Your task to perform on an android device: Open Android settings Image 0: 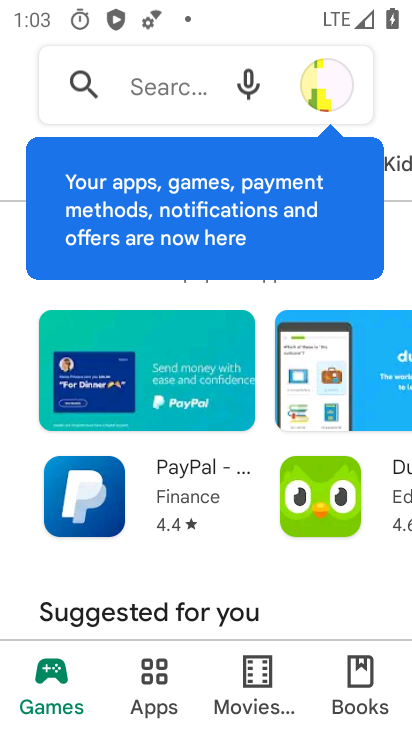
Step 0: press home button
Your task to perform on an android device: Open Android settings Image 1: 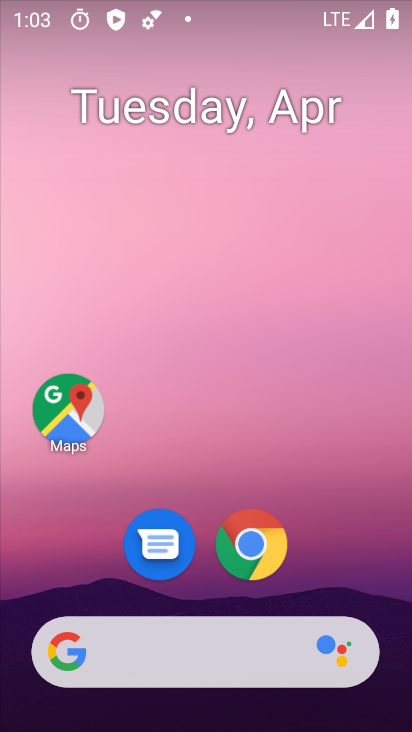
Step 1: drag from (350, 585) to (350, 13)
Your task to perform on an android device: Open Android settings Image 2: 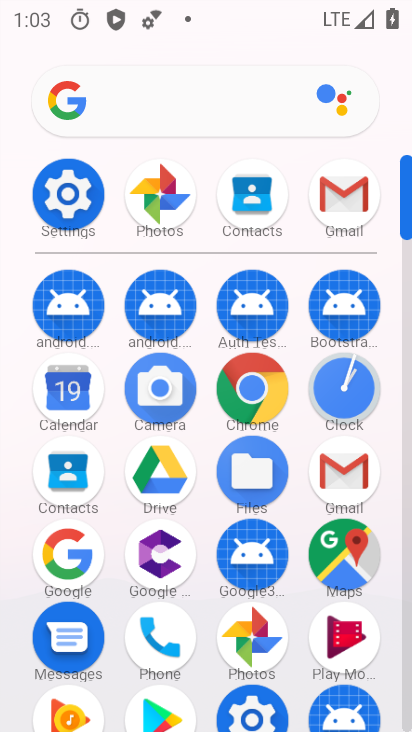
Step 2: click (69, 194)
Your task to perform on an android device: Open Android settings Image 3: 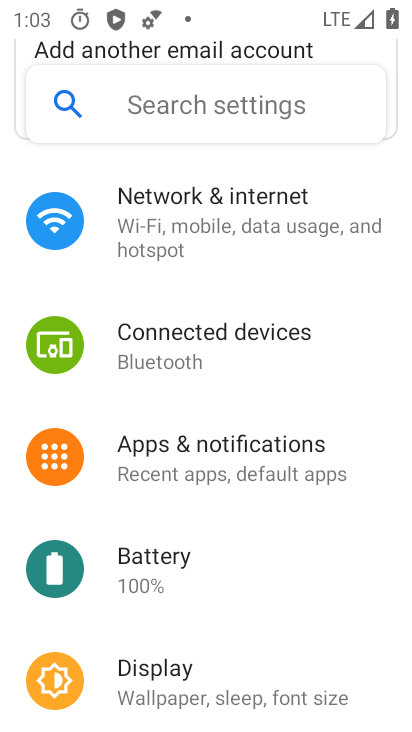
Step 3: drag from (343, 597) to (320, 170)
Your task to perform on an android device: Open Android settings Image 4: 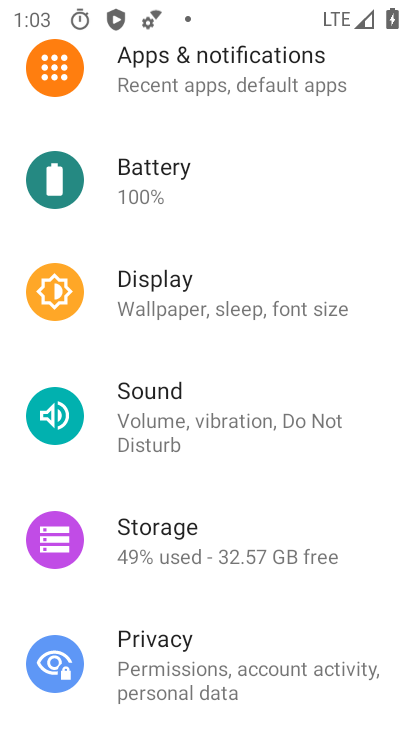
Step 4: drag from (336, 627) to (289, 144)
Your task to perform on an android device: Open Android settings Image 5: 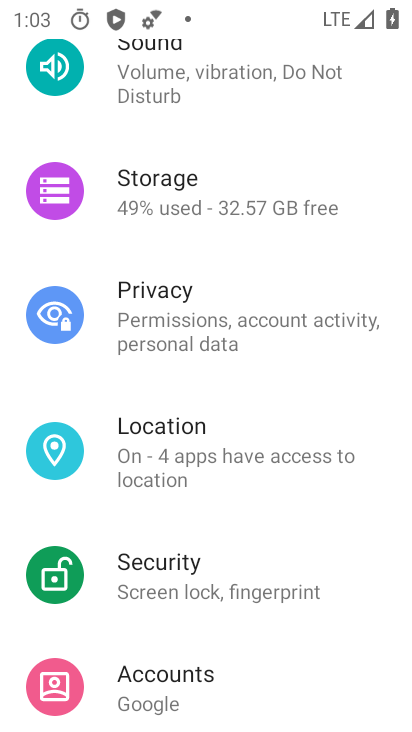
Step 5: drag from (254, 625) to (240, 151)
Your task to perform on an android device: Open Android settings Image 6: 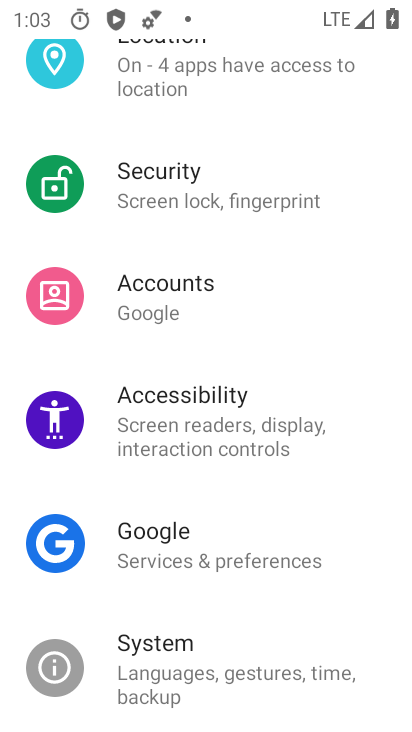
Step 6: drag from (252, 553) to (222, 184)
Your task to perform on an android device: Open Android settings Image 7: 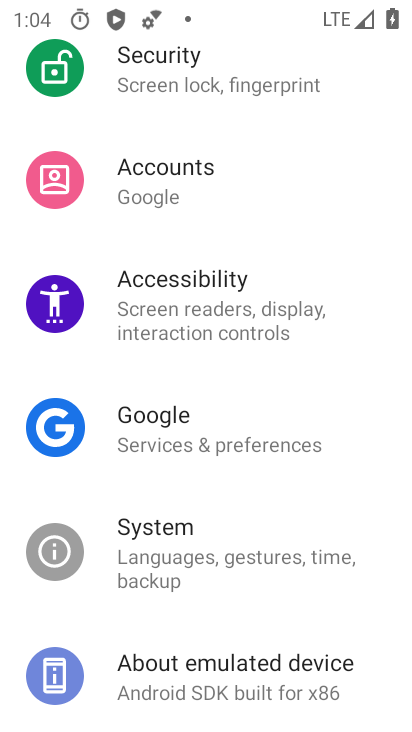
Step 7: click (164, 558)
Your task to perform on an android device: Open Android settings Image 8: 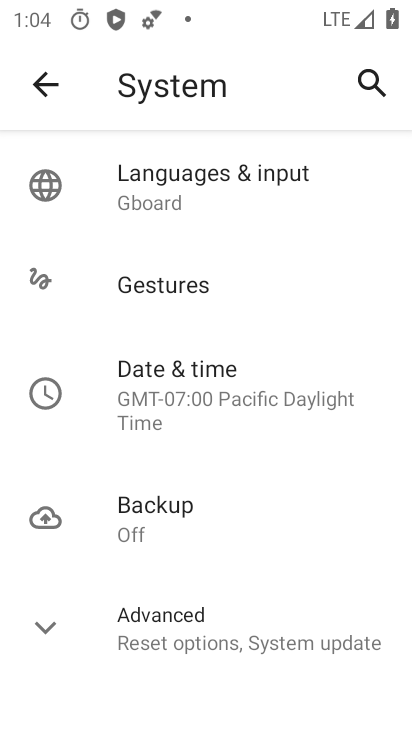
Step 8: drag from (315, 511) to (284, 178)
Your task to perform on an android device: Open Android settings Image 9: 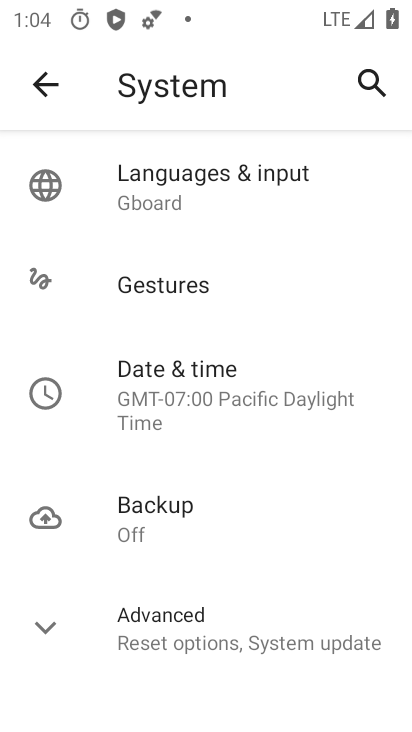
Step 9: click (48, 642)
Your task to perform on an android device: Open Android settings Image 10: 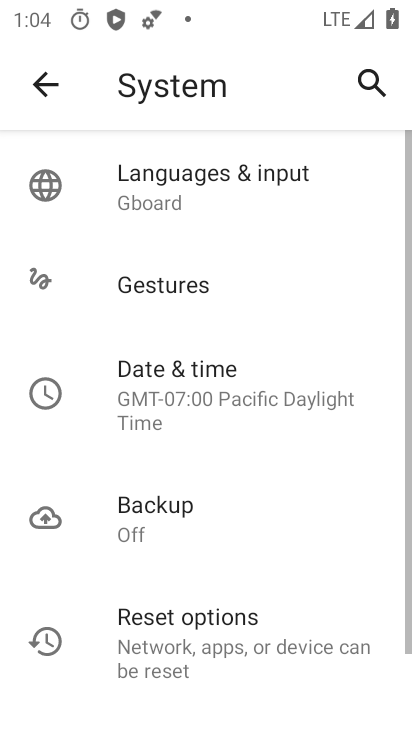
Step 10: task complete